Your task to perform on an android device: Show me the alarms in the clock app Image 0: 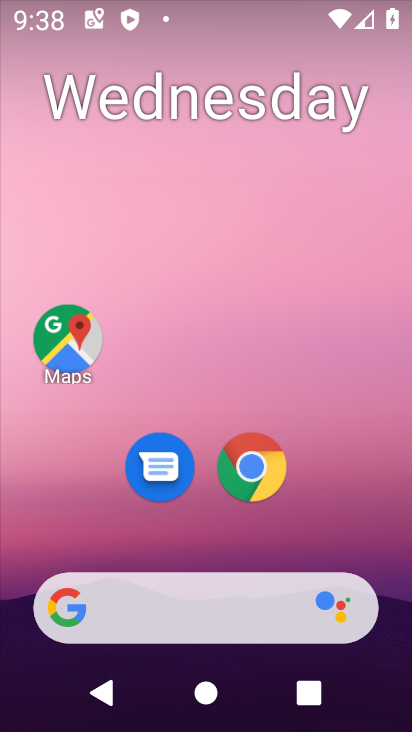
Step 0: drag from (298, 384) to (259, 6)
Your task to perform on an android device: Show me the alarms in the clock app Image 1: 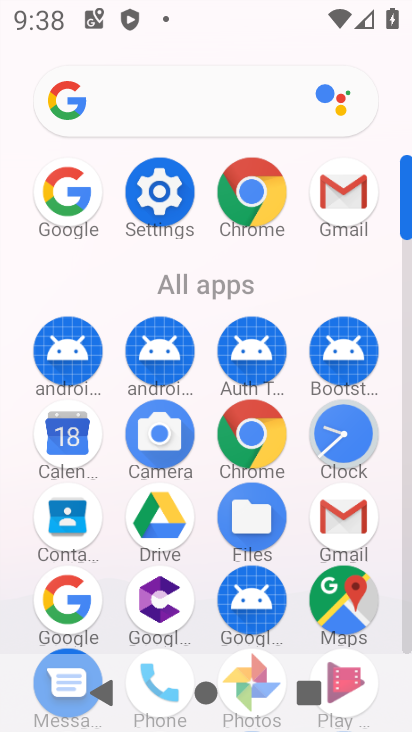
Step 1: click (324, 439)
Your task to perform on an android device: Show me the alarms in the clock app Image 2: 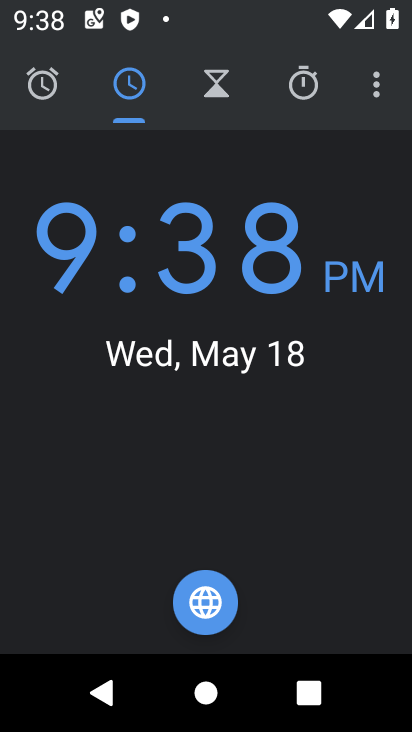
Step 2: click (50, 86)
Your task to perform on an android device: Show me the alarms in the clock app Image 3: 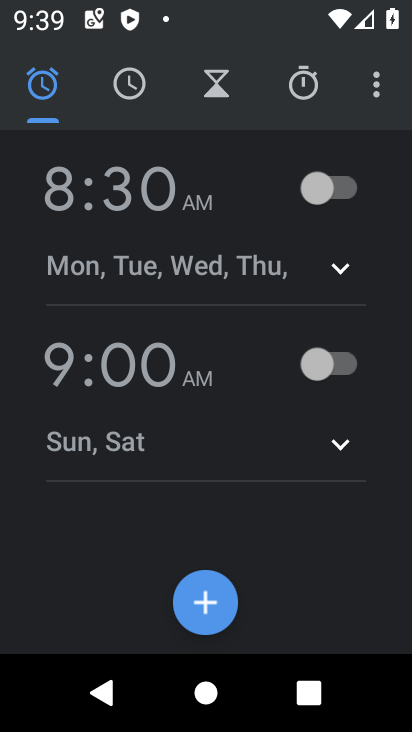
Step 3: task complete